Your task to perform on an android device: check out phone information Image 0: 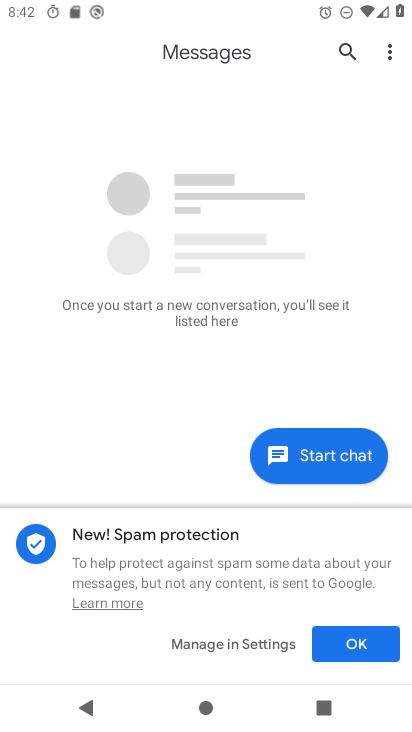
Step 0: press home button
Your task to perform on an android device: check out phone information Image 1: 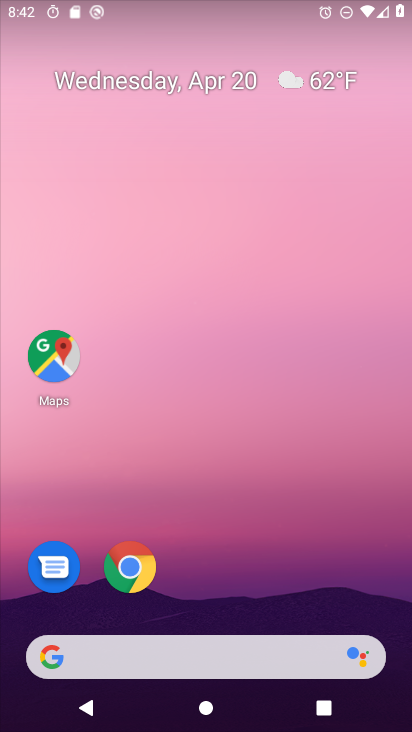
Step 1: drag from (265, 600) to (263, 4)
Your task to perform on an android device: check out phone information Image 2: 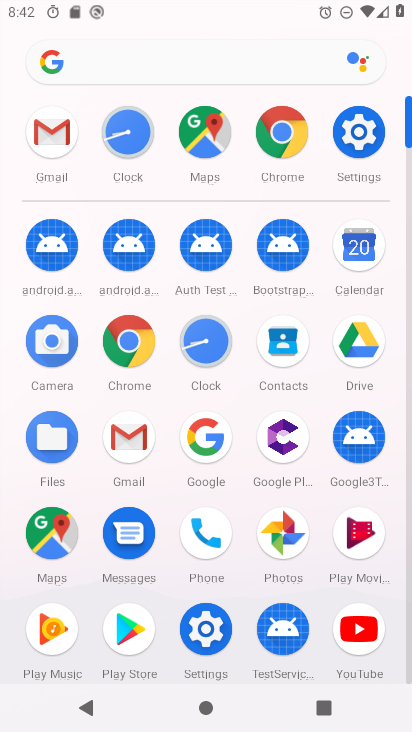
Step 2: click (363, 138)
Your task to perform on an android device: check out phone information Image 3: 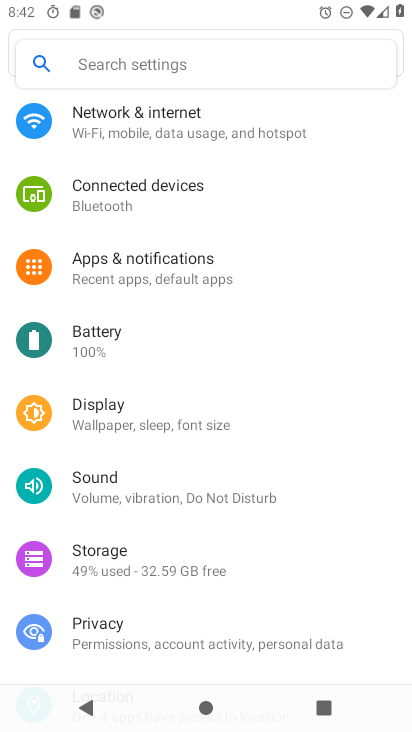
Step 3: drag from (233, 578) to (206, 239)
Your task to perform on an android device: check out phone information Image 4: 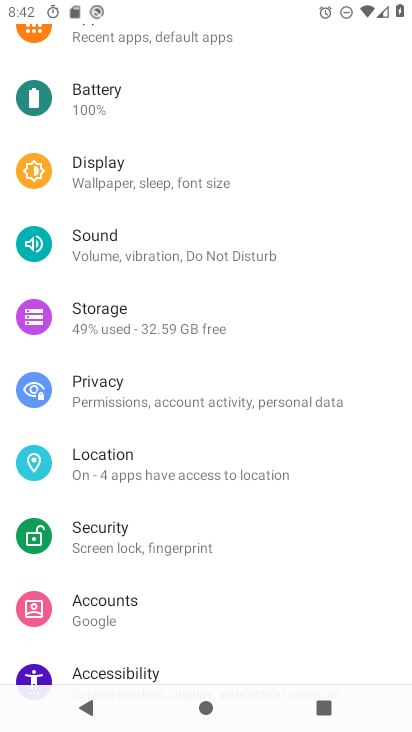
Step 4: drag from (261, 553) to (236, 223)
Your task to perform on an android device: check out phone information Image 5: 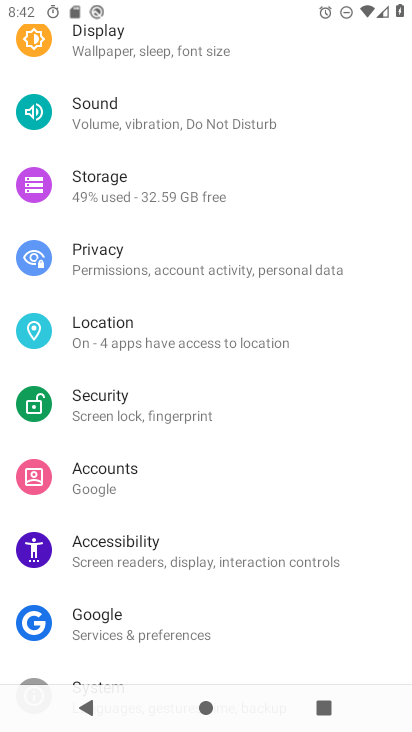
Step 5: drag from (245, 588) to (203, 199)
Your task to perform on an android device: check out phone information Image 6: 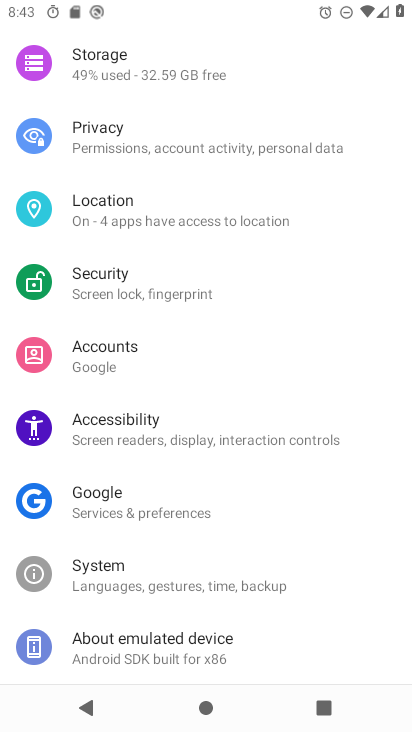
Step 6: drag from (278, 636) to (237, 269)
Your task to perform on an android device: check out phone information Image 7: 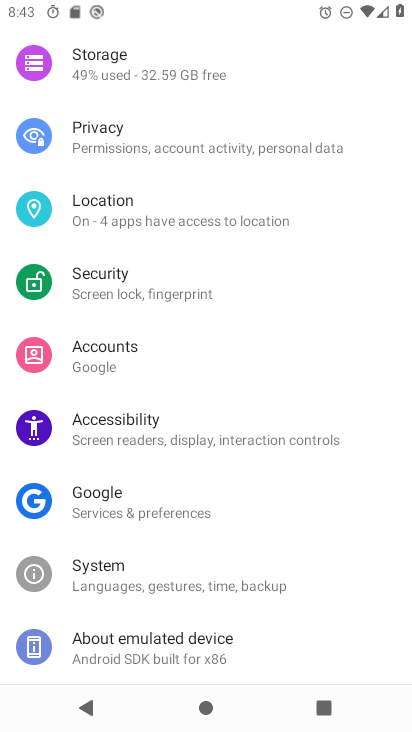
Step 7: click (136, 652)
Your task to perform on an android device: check out phone information Image 8: 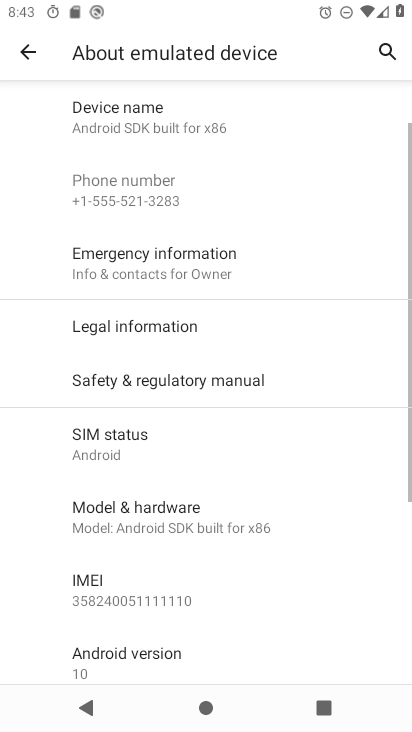
Step 8: task complete